Your task to perform on an android device: What's the weather today? Image 0: 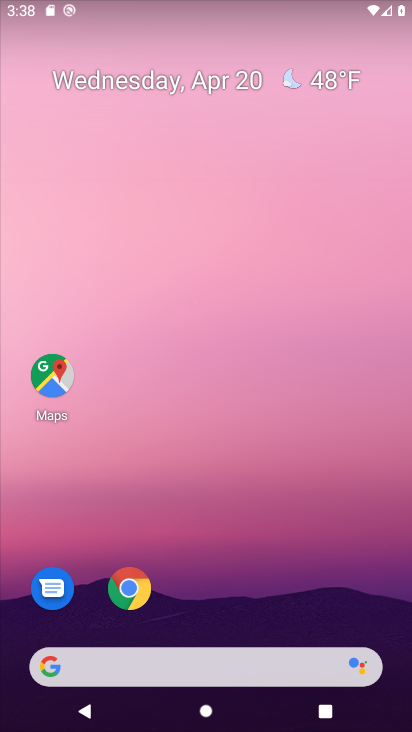
Step 0: click (256, 662)
Your task to perform on an android device: What's the weather today? Image 1: 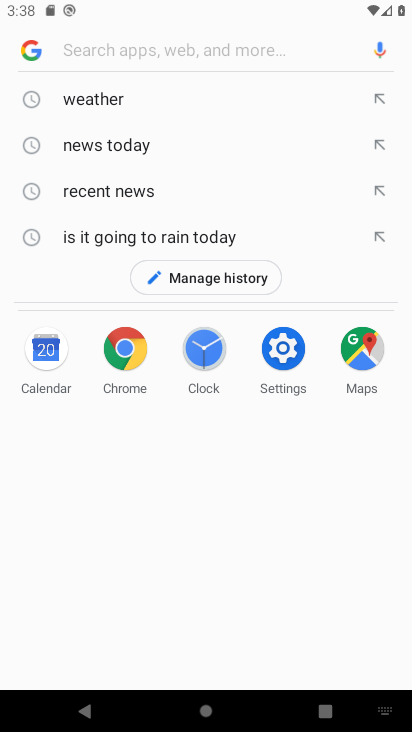
Step 1: click (101, 102)
Your task to perform on an android device: What's the weather today? Image 2: 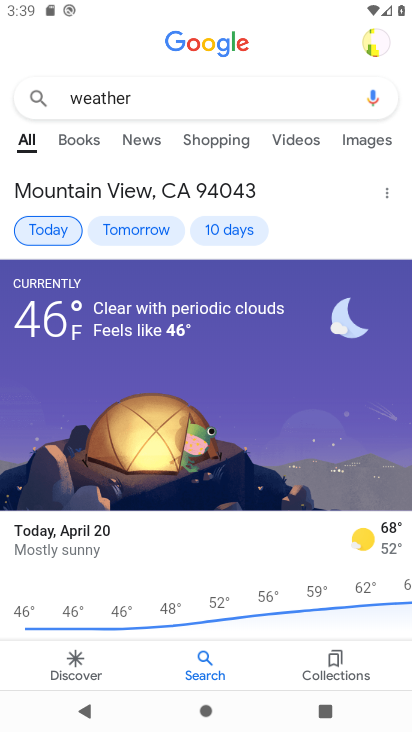
Step 2: task complete